Your task to perform on an android device: turn notification dots off Image 0: 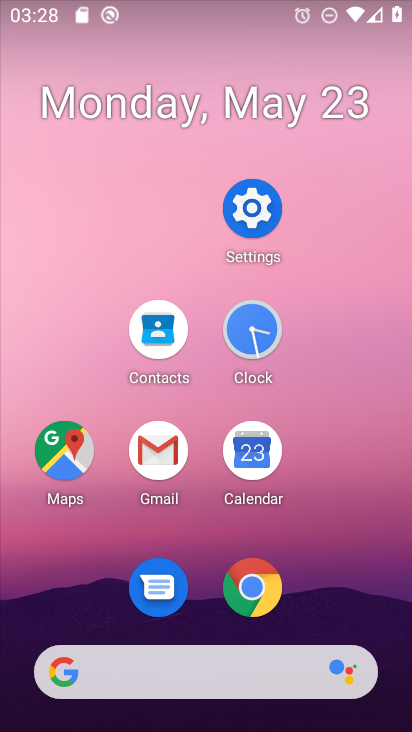
Step 0: drag from (365, 594) to (373, 108)
Your task to perform on an android device: turn notification dots off Image 1: 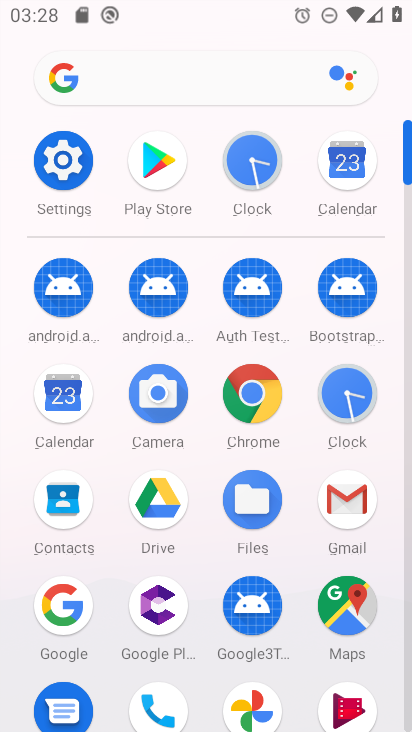
Step 1: click (78, 181)
Your task to perform on an android device: turn notification dots off Image 2: 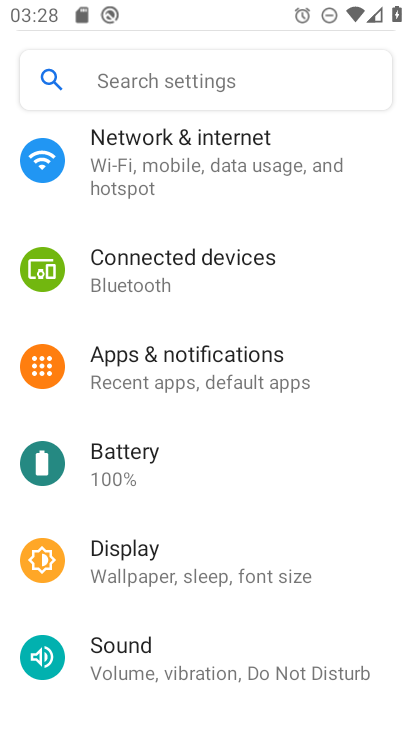
Step 2: click (261, 374)
Your task to perform on an android device: turn notification dots off Image 3: 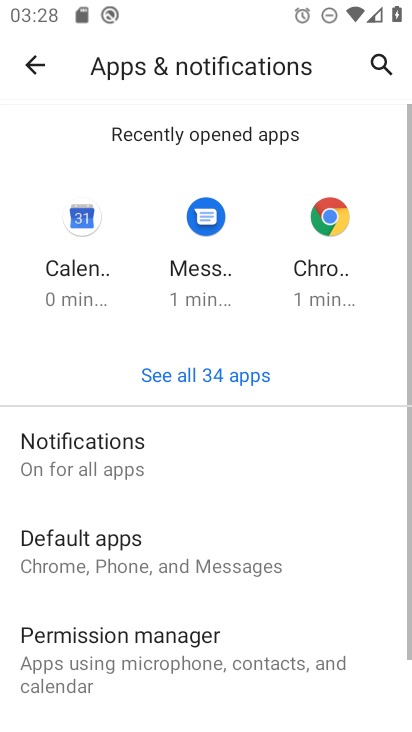
Step 3: drag from (196, 609) to (264, 216)
Your task to perform on an android device: turn notification dots off Image 4: 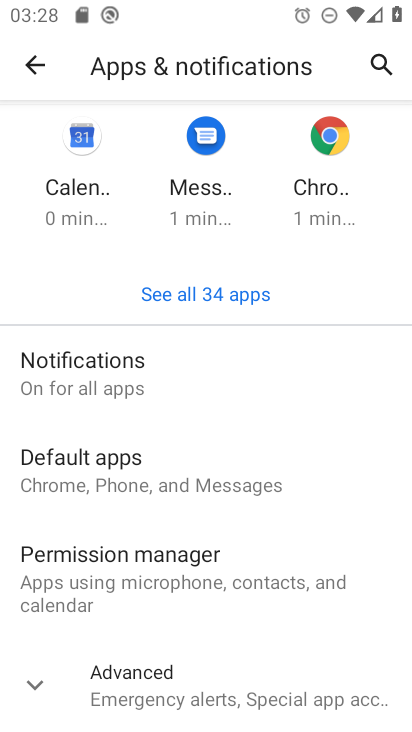
Step 4: click (155, 686)
Your task to perform on an android device: turn notification dots off Image 5: 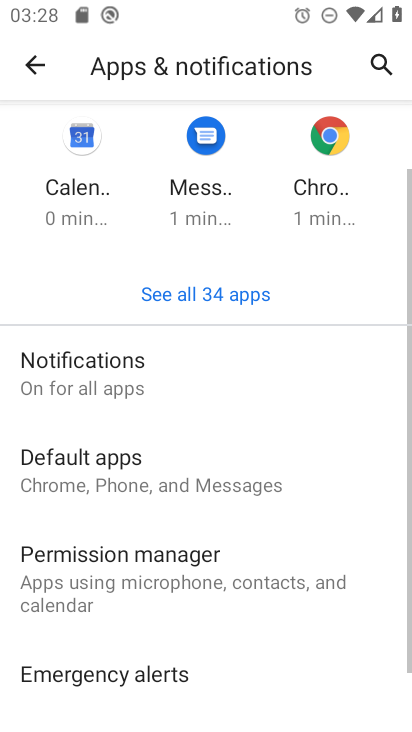
Step 5: drag from (235, 645) to (252, 248)
Your task to perform on an android device: turn notification dots off Image 6: 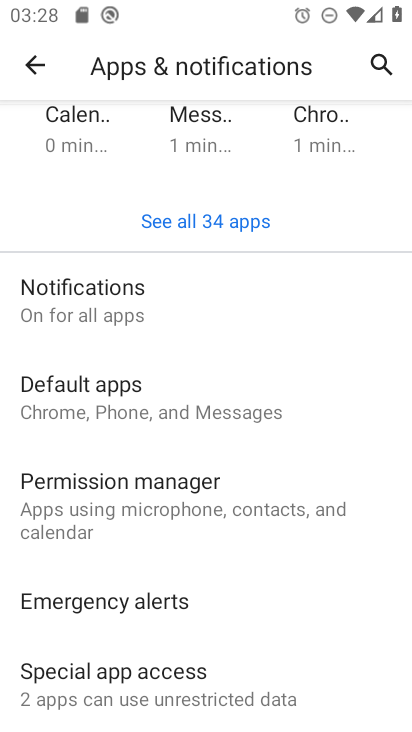
Step 6: click (219, 283)
Your task to perform on an android device: turn notification dots off Image 7: 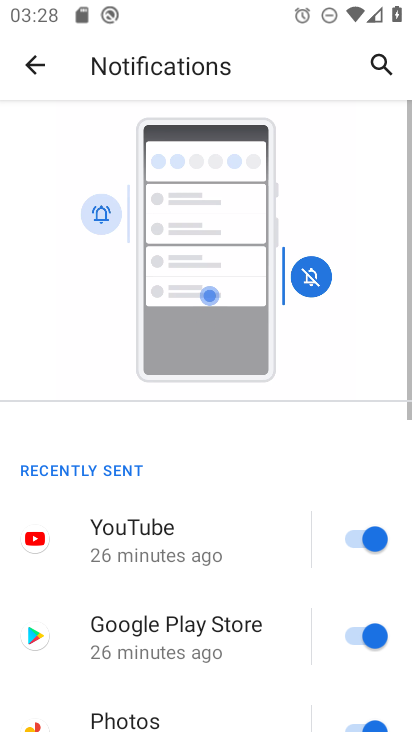
Step 7: drag from (233, 579) to (331, 105)
Your task to perform on an android device: turn notification dots off Image 8: 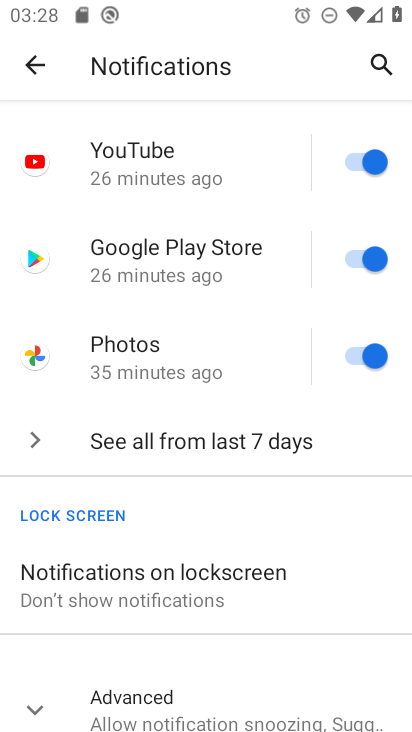
Step 8: drag from (256, 594) to (305, 221)
Your task to perform on an android device: turn notification dots off Image 9: 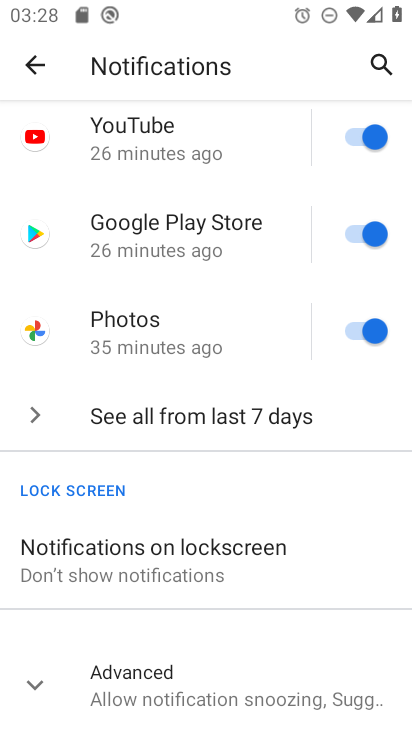
Step 9: click (214, 697)
Your task to perform on an android device: turn notification dots off Image 10: 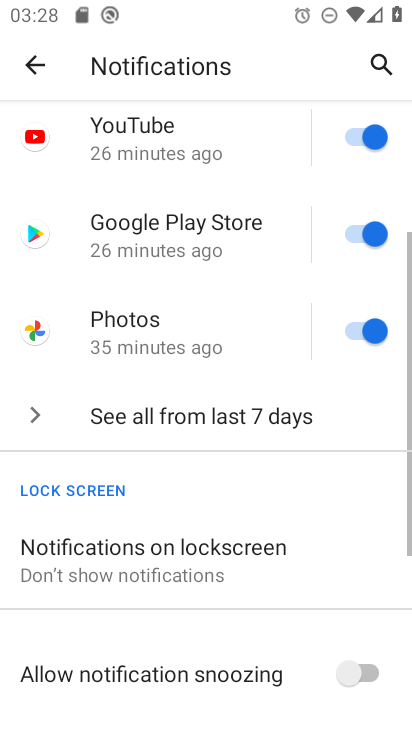
Step 10: drag from (265, 650) to (259, 150)
Your task to perform on an android device: turn notification dots off Image 11: 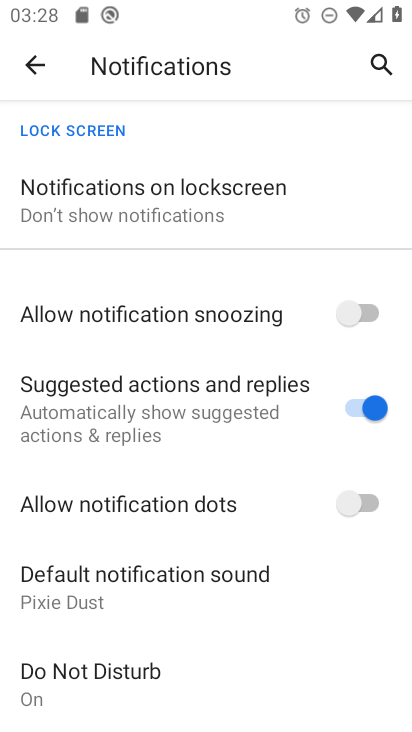
Step 11: click (339, 480)
Your task to perform on an android device: turn notification dots off Image 12: 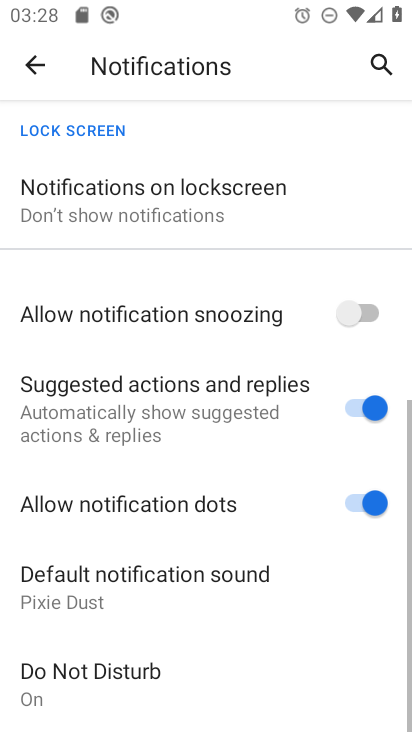
Step 12: click (339, 480)
Your task to perform on an android device: turn notification dots off Image 13: 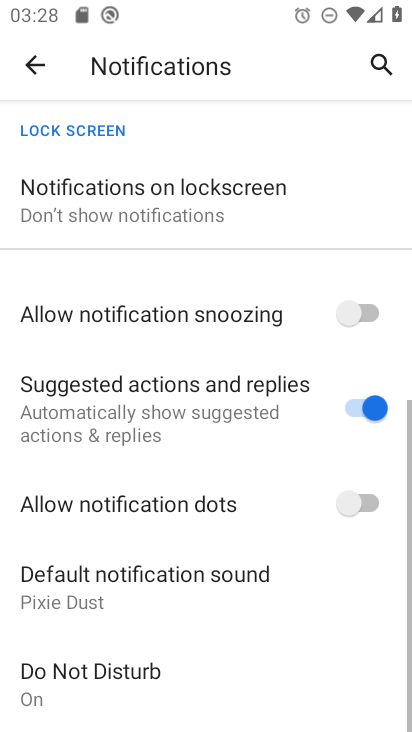
Step 13: task complete